Your task to perform on an android device: clear all cookies in the chrome app Image 0: 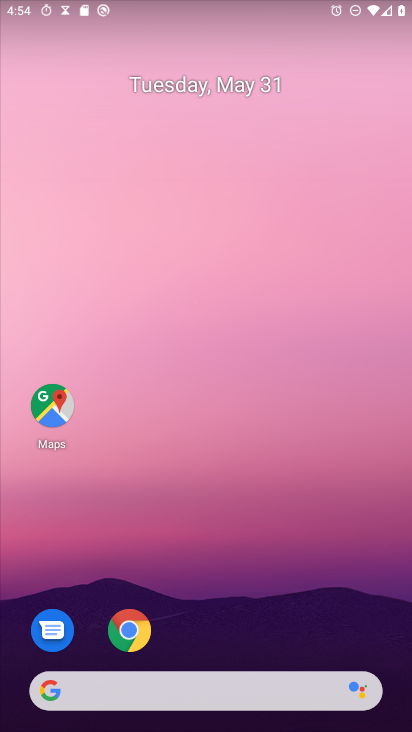
Step 0: drag from (302, 678) to (339, 4)
Your task to perform on an android device: clear all cookies in the chrome app Image 1: 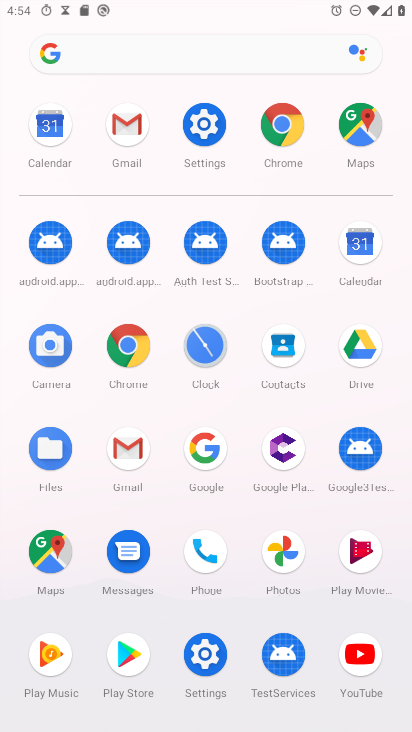
Step 1: click (133, 358)
Your task to perform on an android device: clear all cookies in the chrome app Image 2: 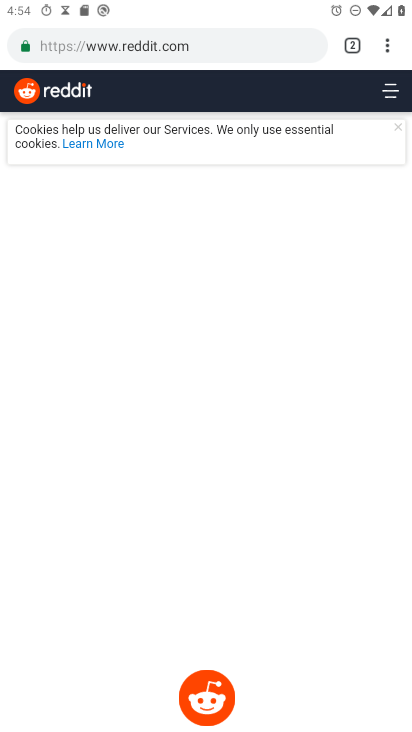
Step 2: click (386, 43)
Your task to perform on an android device: clear all cookies in the chrome app Image 3: 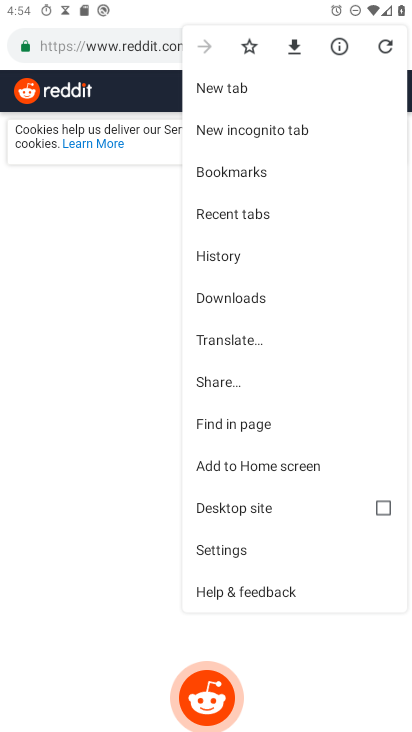
Step 3: click (215, 550)
Your task to perform on an android device: clear all cookies in the chrome app Image 4: 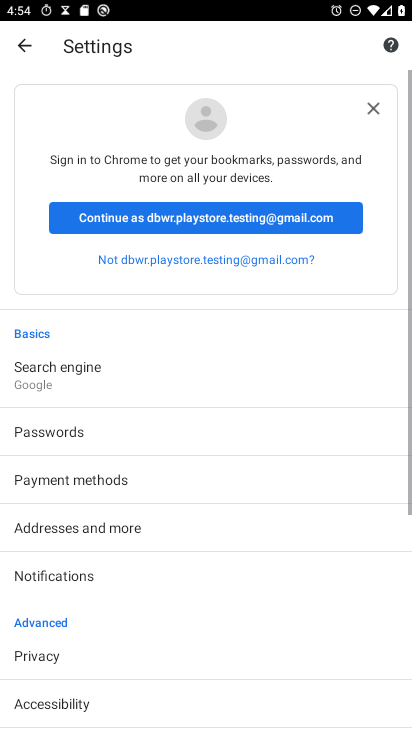
Step 4: click (85, 659)
Your task to perform on an android device: clear all cookies in the chrome app Image 5: 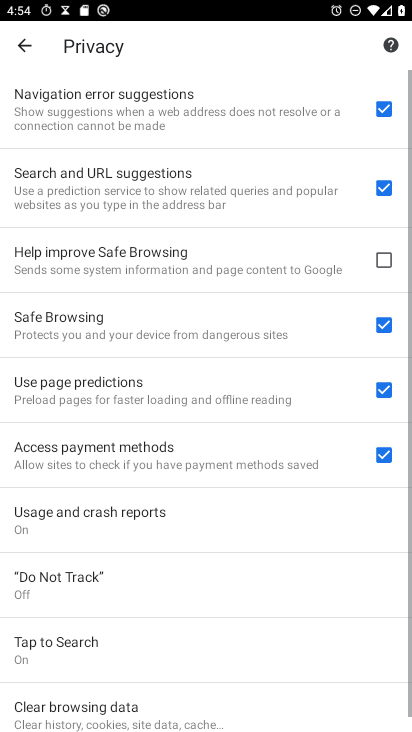
Step 5: drag from (212, 619) to (328, 6)
Your task to perform on an android device: clear all cookies in the chrome app Image 6: 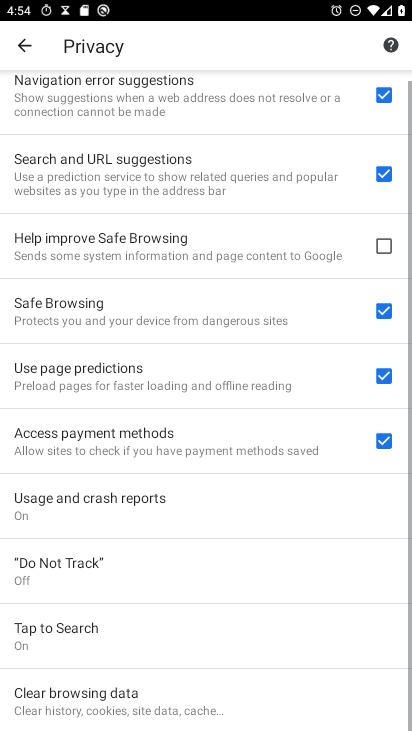
Step 6: click (240, 712)
Your task to perform on an android device: clear all cookies in the chrome app Image 7: 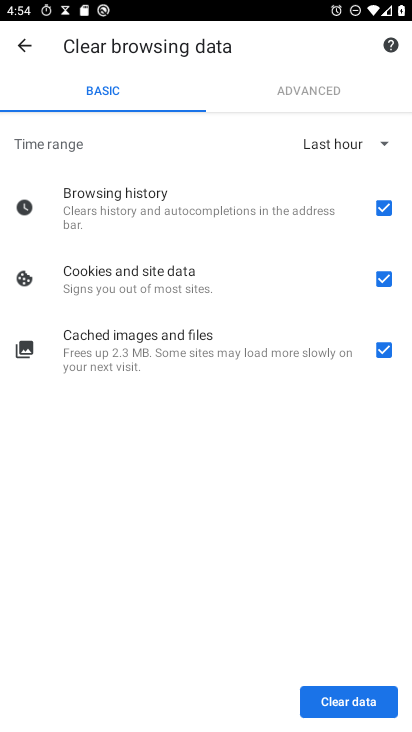
Step 7: click (359, 688)
Your task to perform on an android device: clear all cookies in the chrome app Image 8: 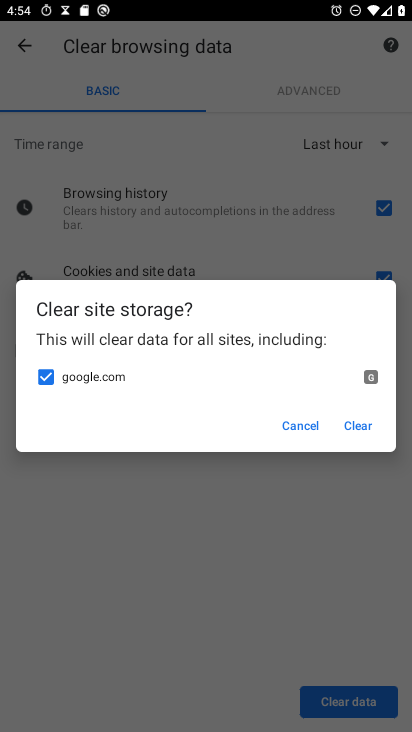
Step 8: click (354, 435)
Your task to perform on an android device: clear all cookies in the chrome app Image 9: 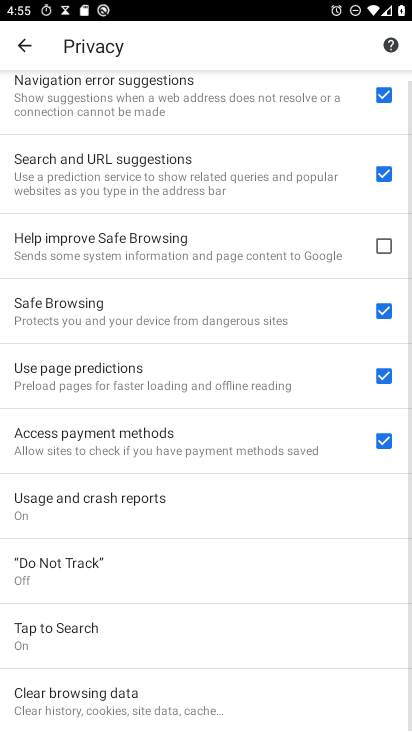
Step 9: task complete